Your task to perform on an android device: What's the weather? Image 0: 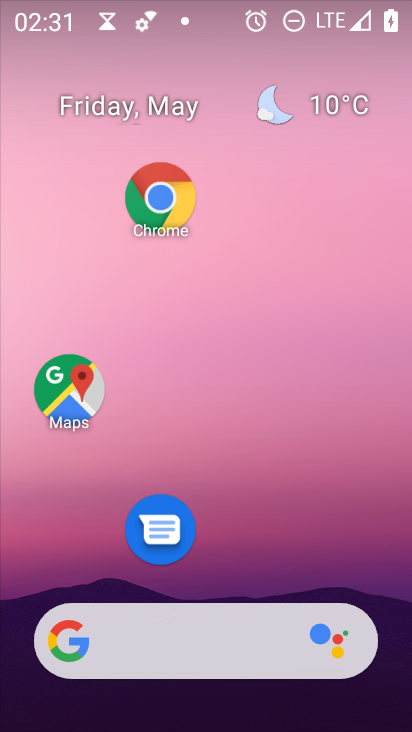
Step 0: drag from (245, 534) to (289, 215)
Your task to perform on an android device: What's the weather? Image 1: 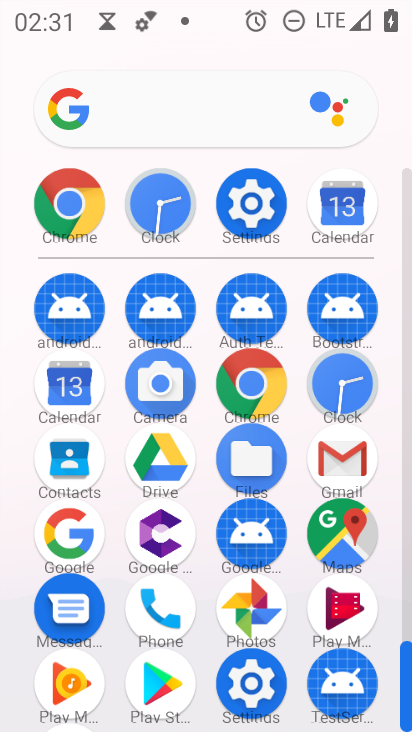
Step 1: click (54, 191)
Your task to perform on an android device: What's the weather? Image 2: 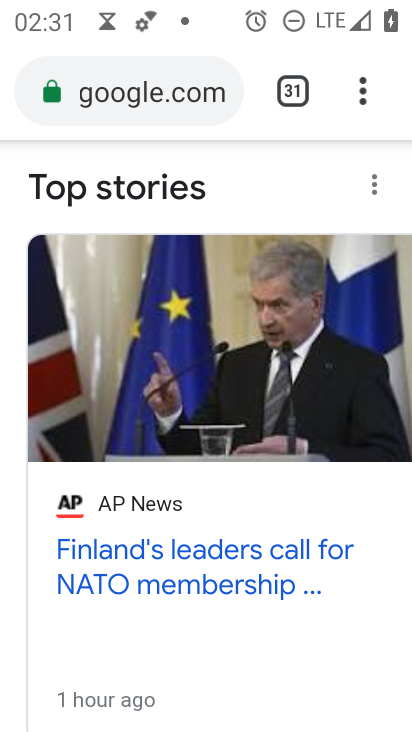
Step 2: drag from (230, 235) to (226, 474)
Your task to perform on an android device: What's the weather? Image 3: 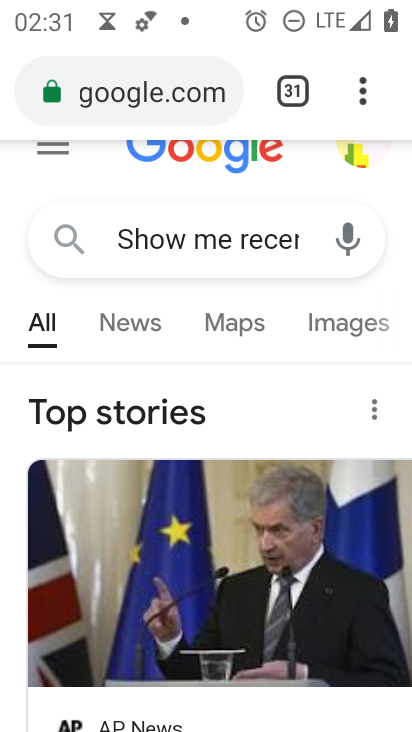
Step 3: click (357, 88)
Your task to perform on an android device: What's the weather? Image 4: 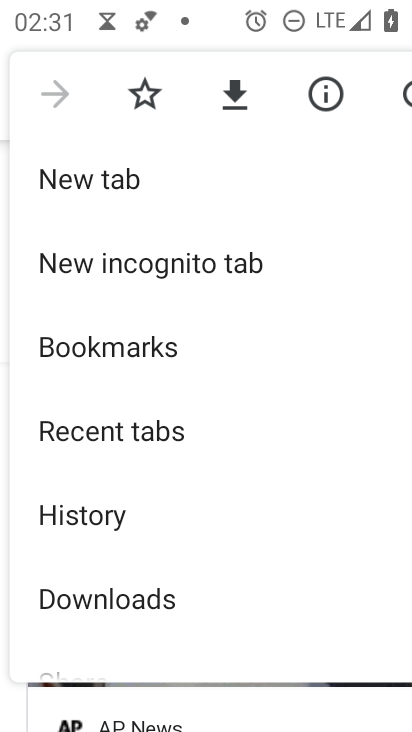
Step 4: click (110, 163)
Your task to perform on an android device: What's the weather? Image 5: 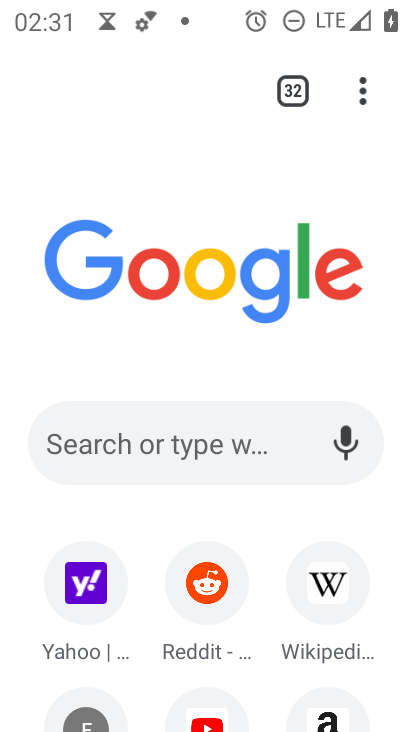
Step 5: click (180, 442)
Your task to perform on an android device: What's the weather? Image 6: 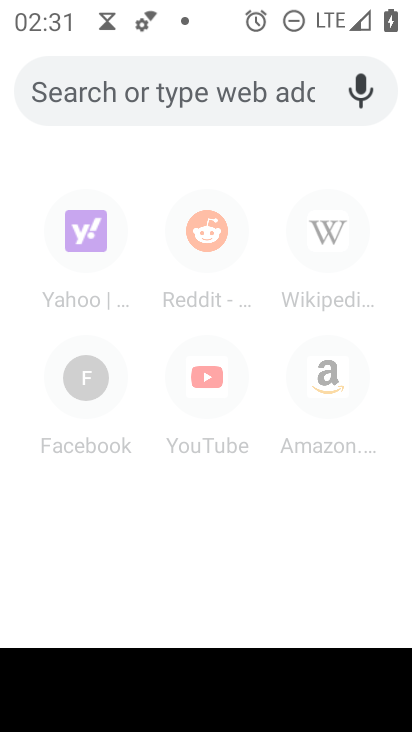
Step 6: type "What's the weather?"
Your task to perform on an android device: What's the weather? Image 7: 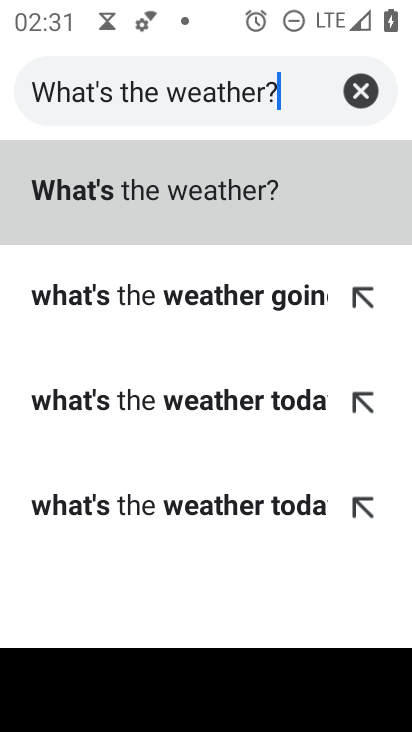
Step 7: click (188, 197)
Your task to perform on an android device: What's the weather? Image 8: 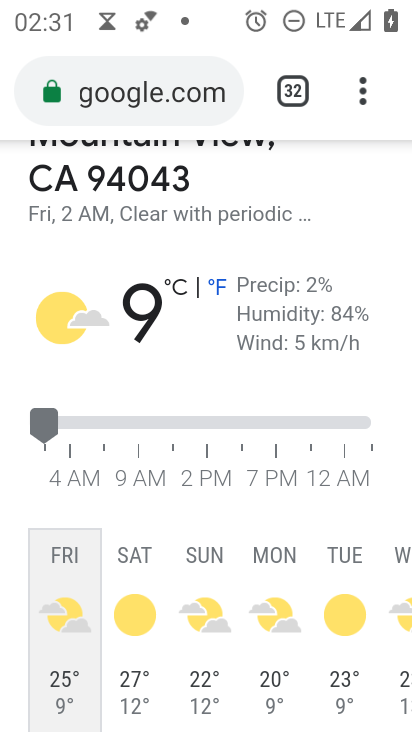
Step 8: task complete